Your task to perform on an android device: Check the weather Image 0: 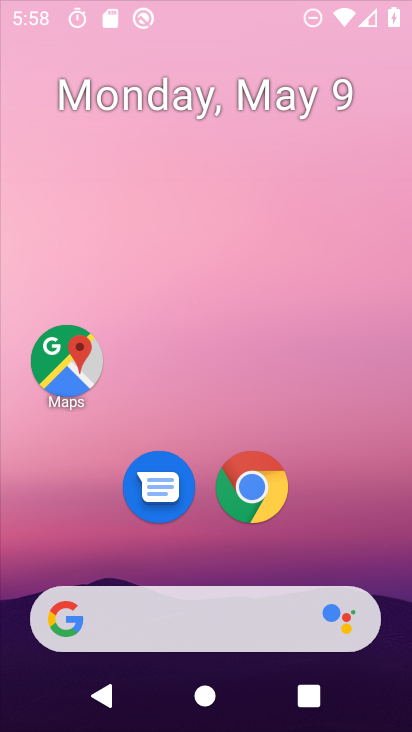
Step 0: drag from (313, 470) to (268, 170)
Your task to perform on an android device: Check the weather Image 1: 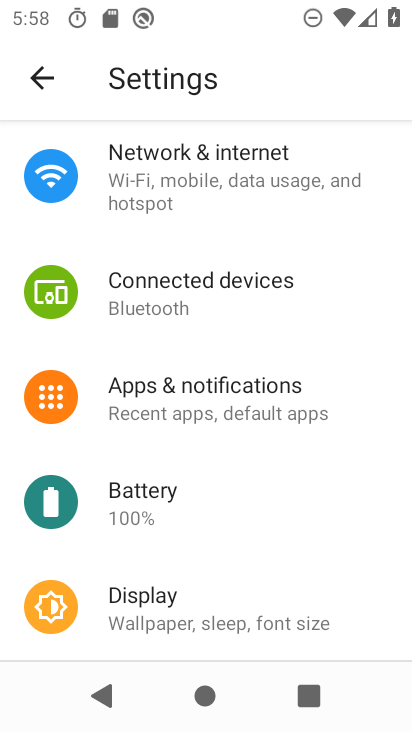
Step 1: drag from (322, 603) to (281, 267)
Your task to perform on an android device: Check the weather Image 2: 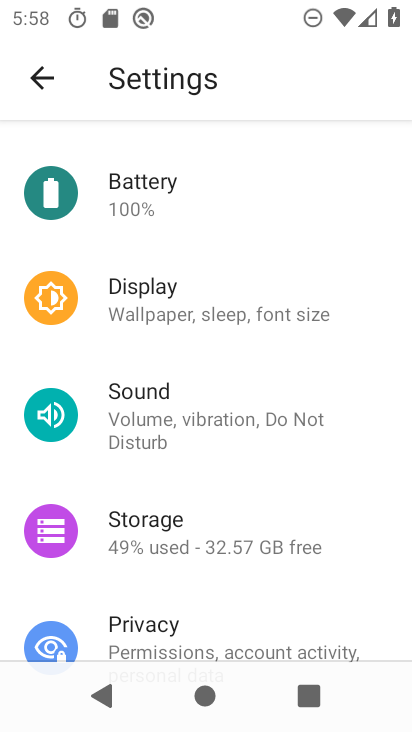
Step 2: press home button
Your task to perform on an android device: Check the weather Image 3: 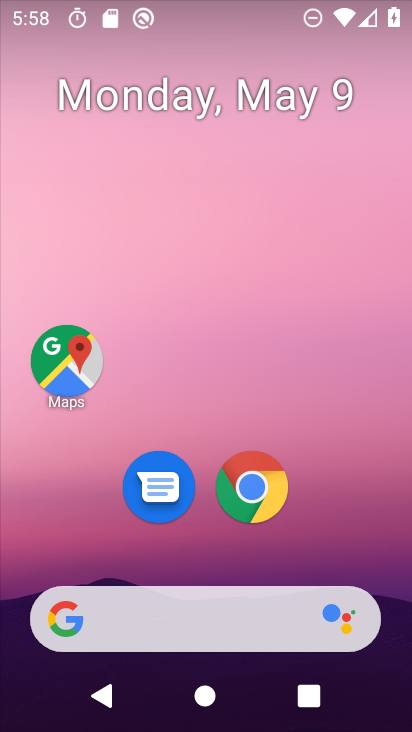
Step 3: drag from (280, 546) to (286, 178)
Your task to perform on an android device: Check the weather Image 4: 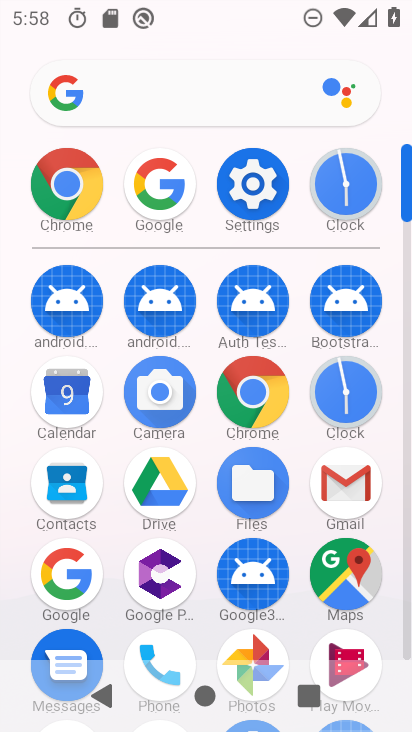
Step 4: click (152, 191)
Your task to perform on an android device: Check the weather Image 5: 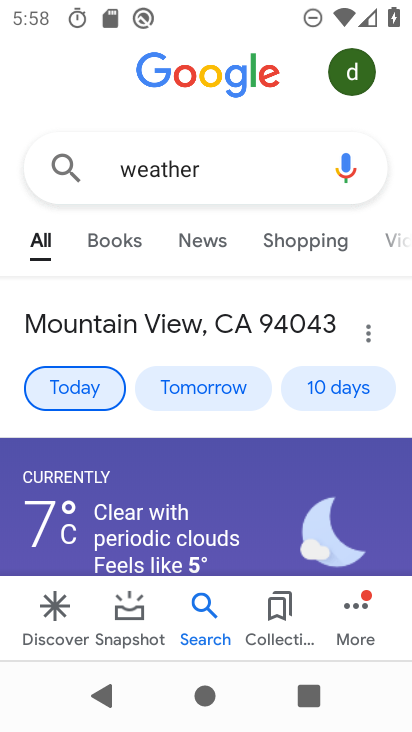
Step 5: task complete